Your task to perform on an android device: Open Amazon Image 0: 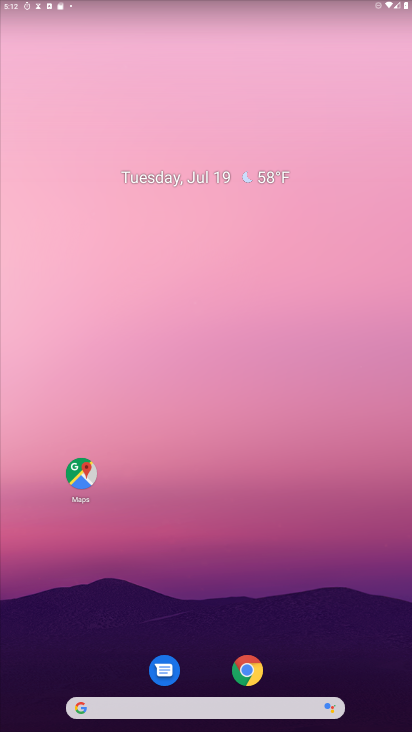
Step 0: drag from (275, 417) to (245, 1)
Your task to perform on an android device: Open Amazon Image 1: 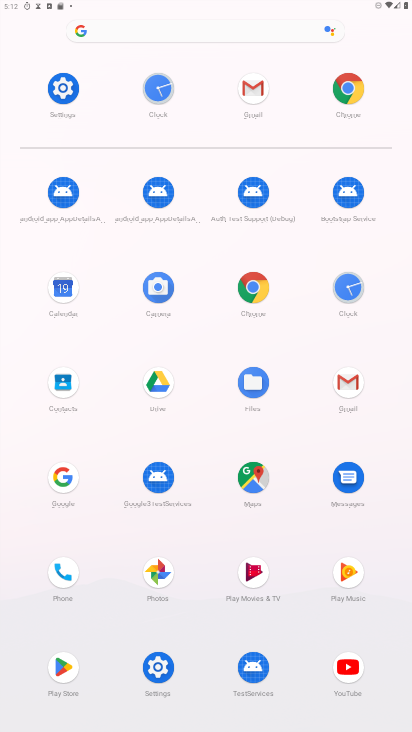
Step 1: click (254, 291)
Your task to perform on an android device: Open Amazon Image 2: 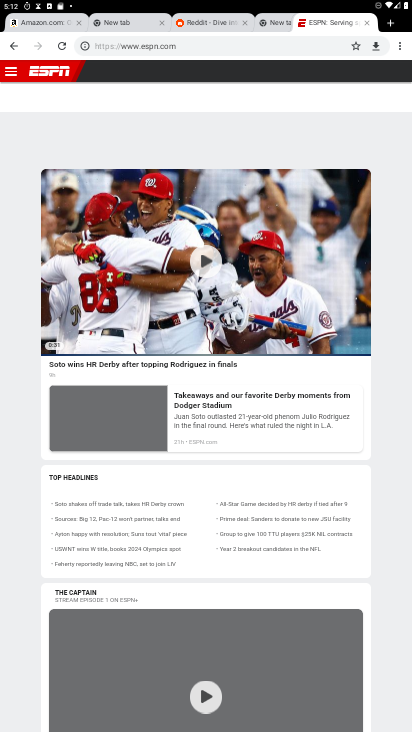
Step 2: click (39, 23)
Your task to perform on an android device: Open Amazon Image 3: 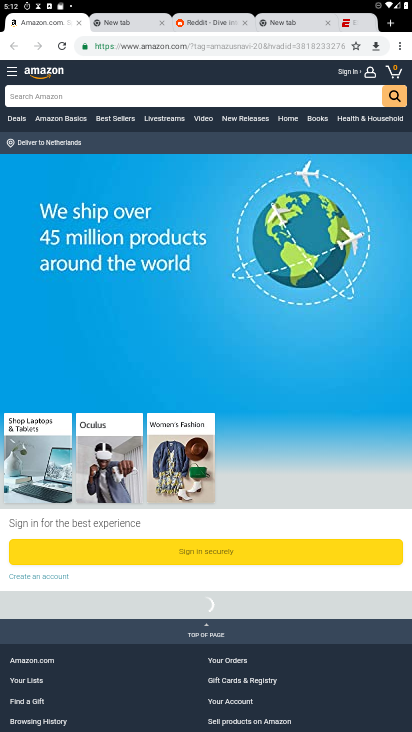
Step 3: task complete